Your task to perform on an android device: Add logitech g pro to the cart on walmart.com Image 0: 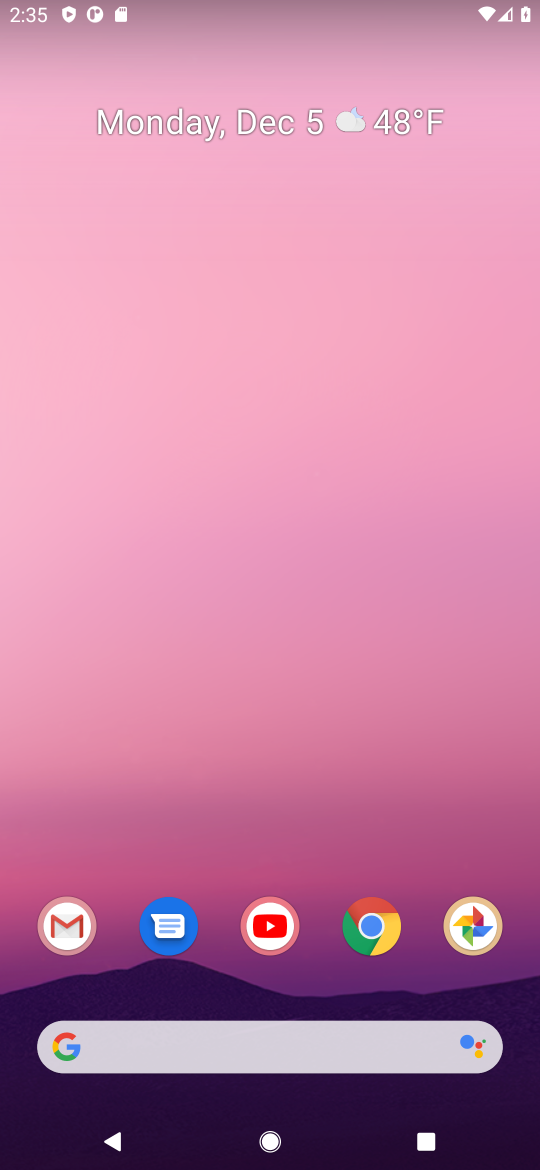
Step 0: click (380, 930)
Your task to perform on an android device: Add logitech g pro to the cart on walmart.com Image 1: 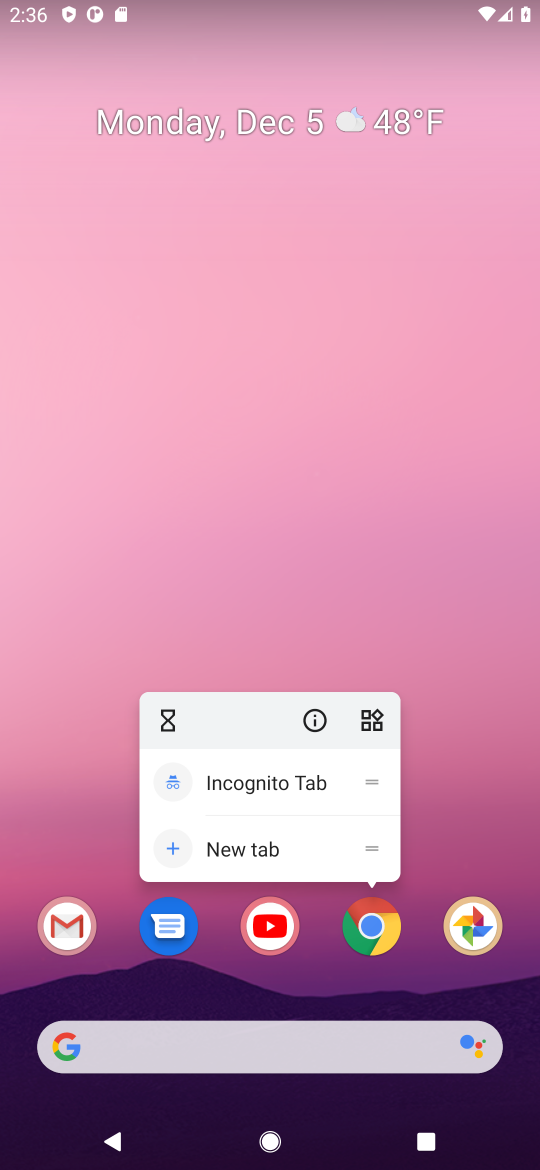
Step 1: click (396, 925)
Your task to perform on an android device: Add logitech g pro to the cart on walmart.com Image 2: 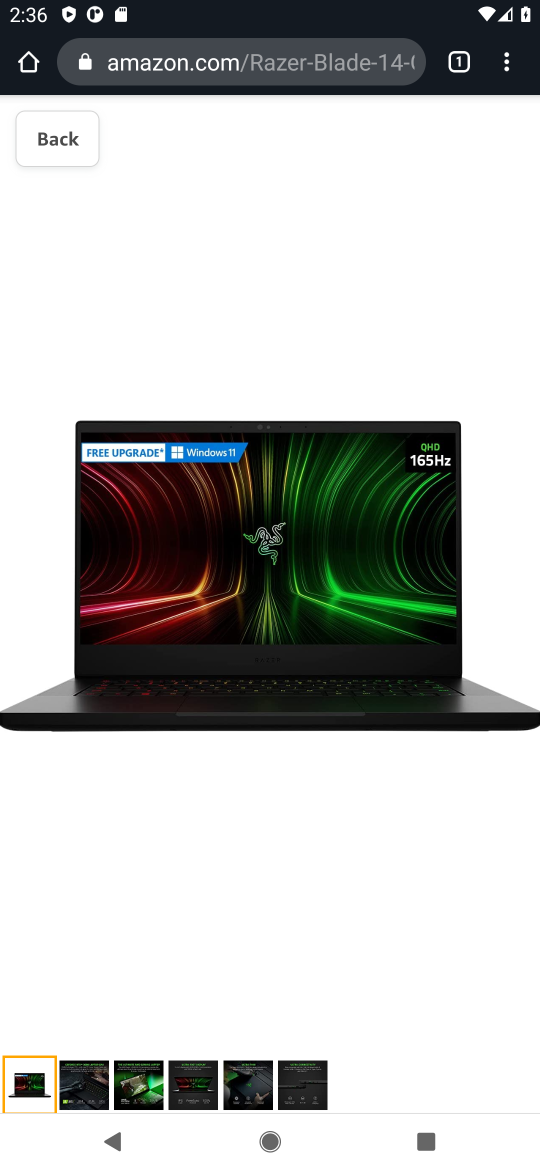
Step 2: click (230, 69)
Your task to perform on an android device: Add logitech g pro to the cart on walmart.com Image 3: 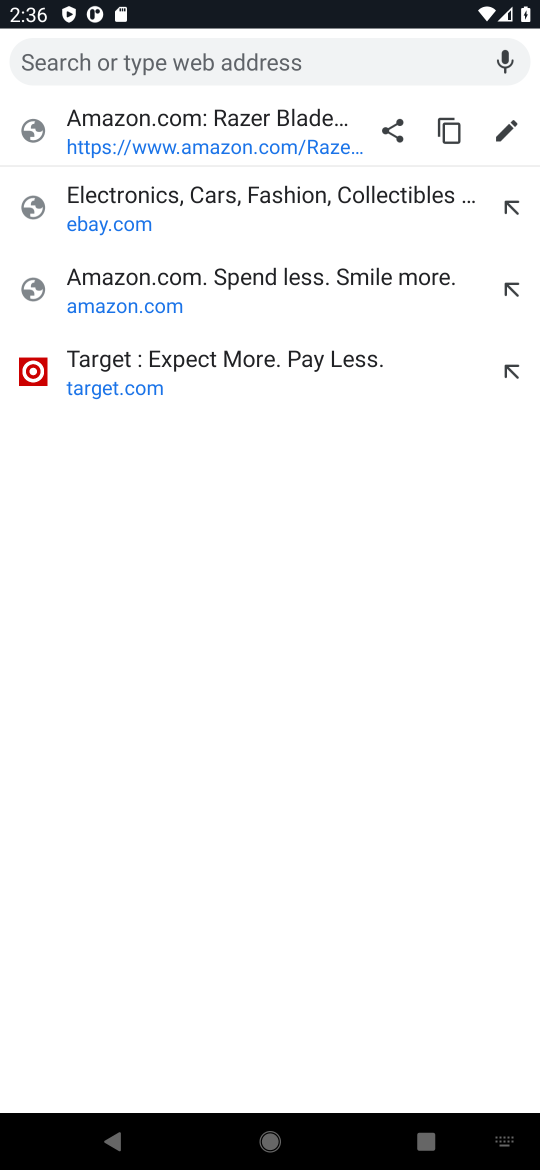
Step 3: type "walmart.com"
Your task to perform on an android device: Add logitech g pro to the cart on walmart.com Image 4: 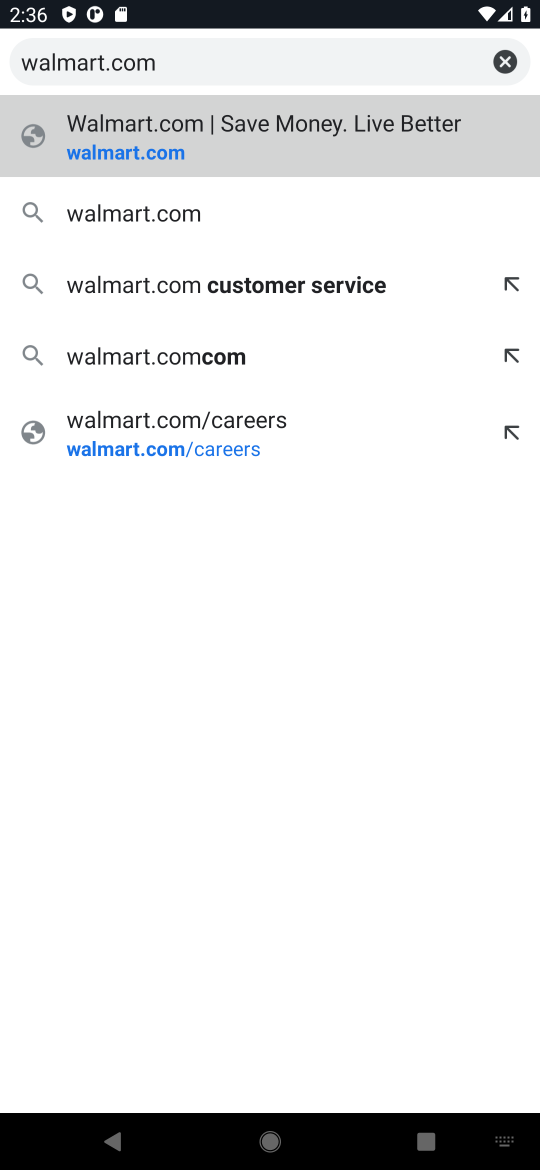
Step 4: press enter
Your task to perform on an android device: Add logitech g pro to the cart on walmart.com Image 5: 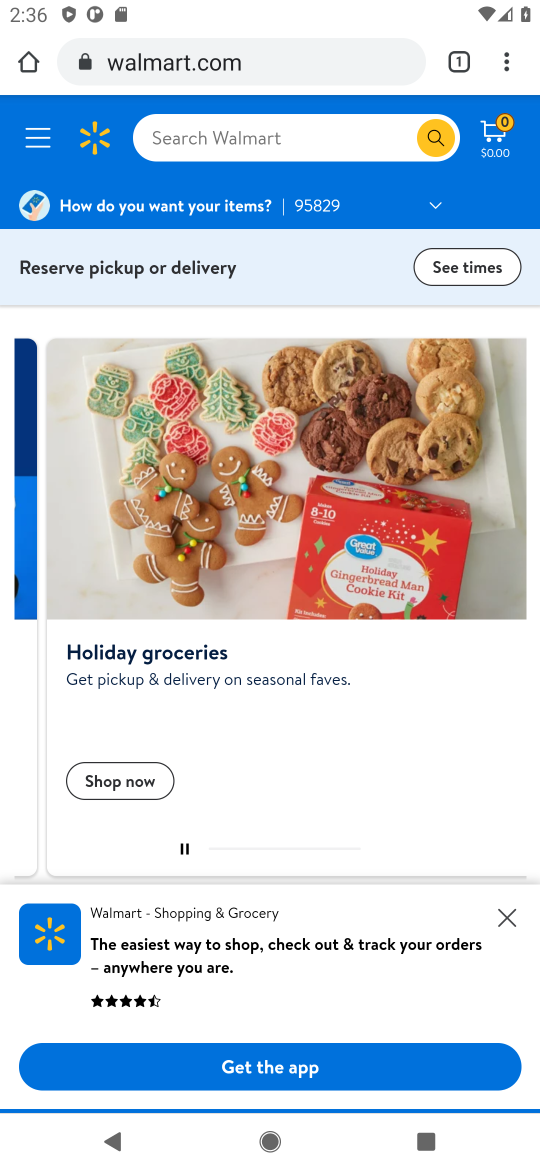
Step 5: click (385, 122)
Your task to perform on an android device: Add logitech g pro to the cart on walmart.com Image 6: 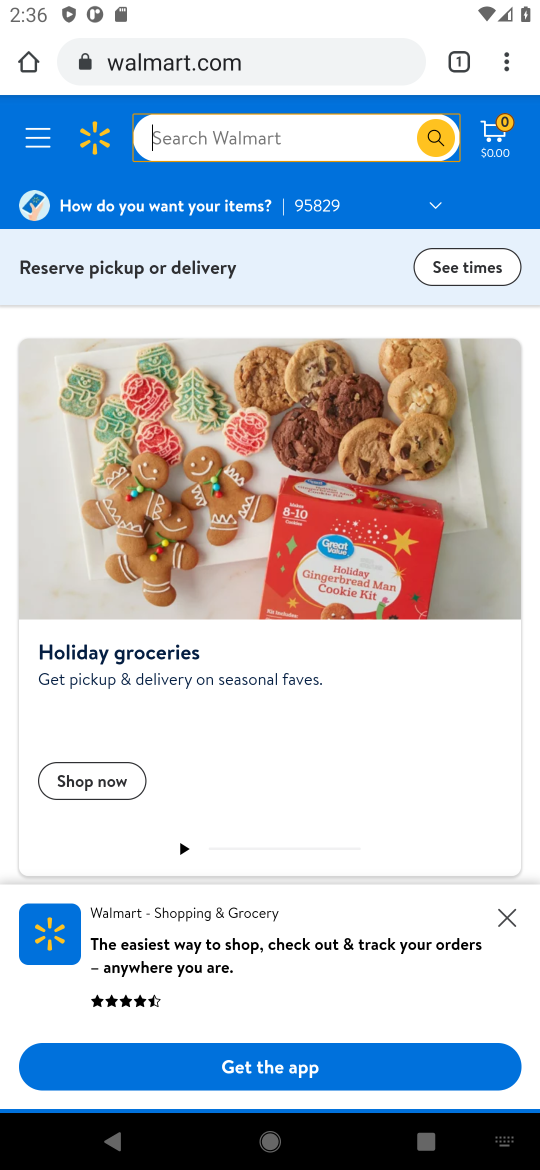
Step 6: press enter
Your task to perform on an android device: Add logitech g pro to the cart on walmart.com Image 7: 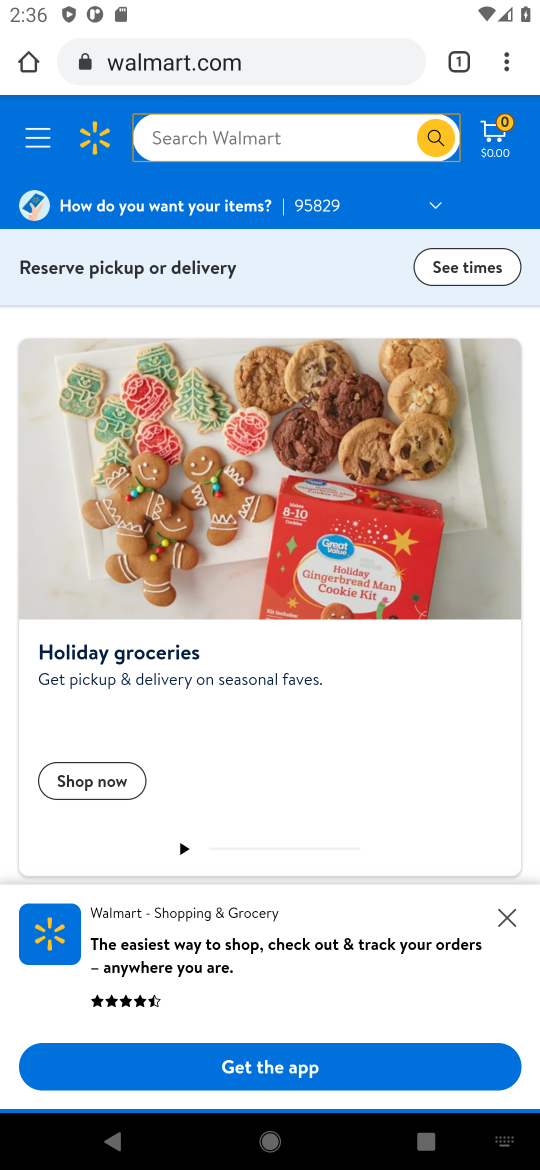
Step 7: type "logitech g pro"
Your task to perform on an android device: Add logitech g pro to the cart on walmart.com Image 8: 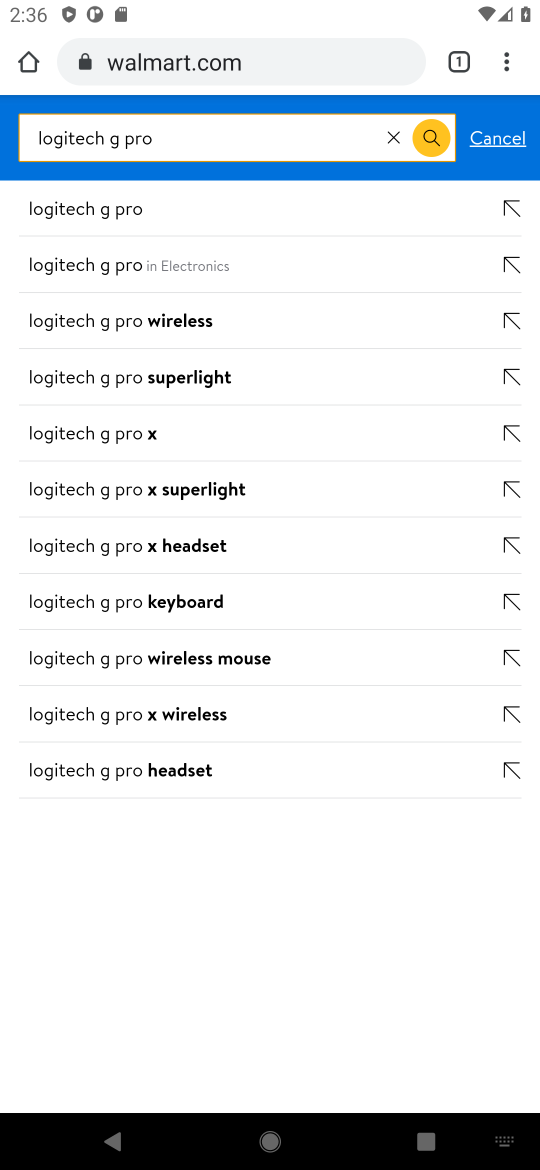
Step 8: click (82, 213)
Your task to perform on an android device: Add logitech g pro to the cart on walmart.com Image 9: 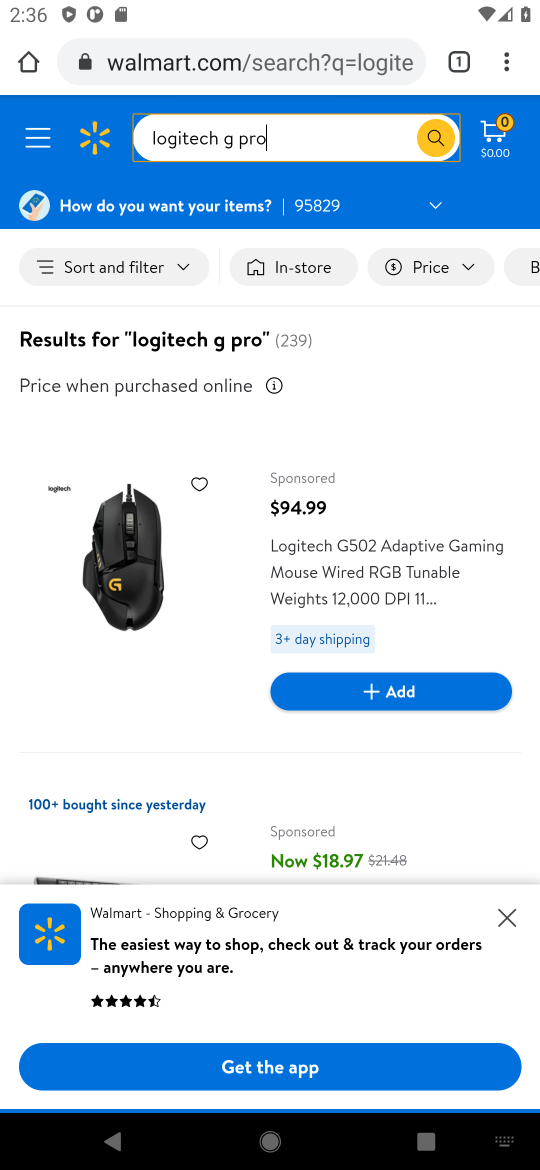
Step 9: click (508, 916)
Your task to perform on an android device: Add logitech g pro to the cart on walmart.com Image 10: 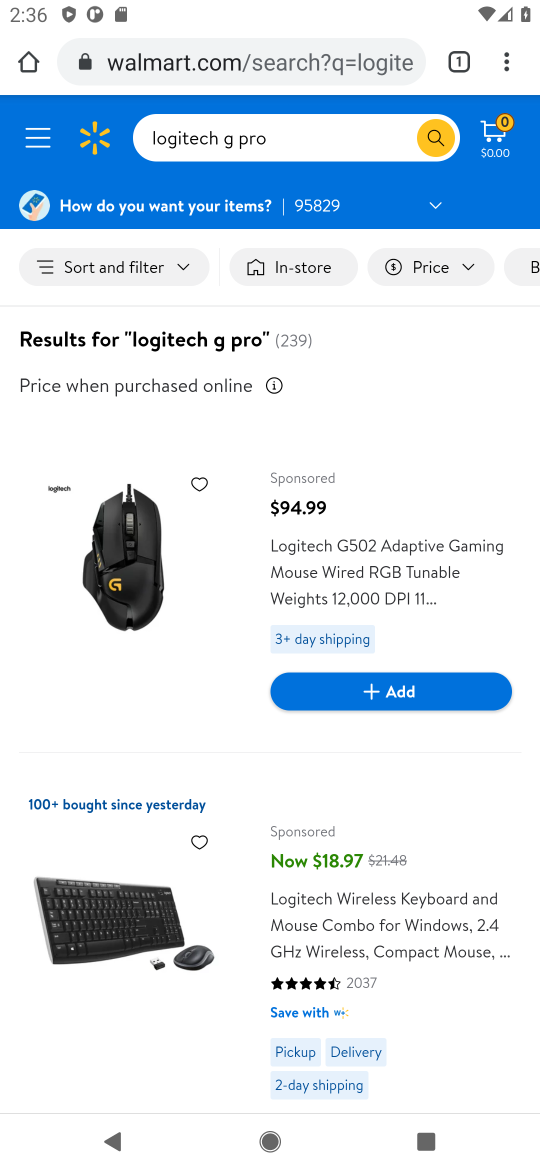
Step 10: drag from (459, 838) to (509, 335)
Your task to perform on an android device: Add logitech g pro to the cart on walmart.com Image 11: 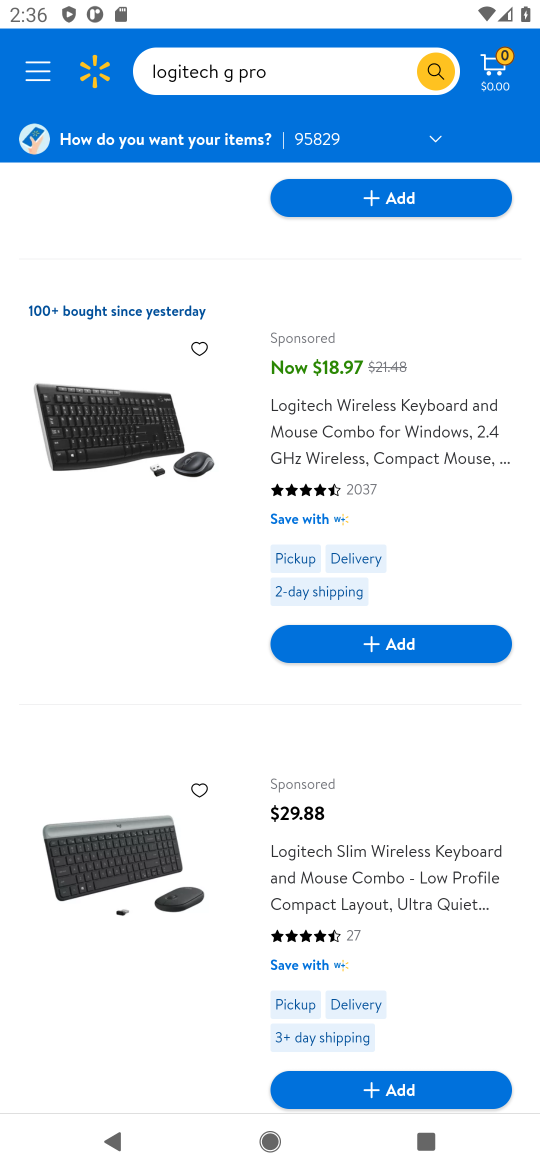
Step 11: drag from (422, 758) to (420, 368)
Your task to perform on an android device: Add logitech g pro to the cart on walmart.com Image 12: 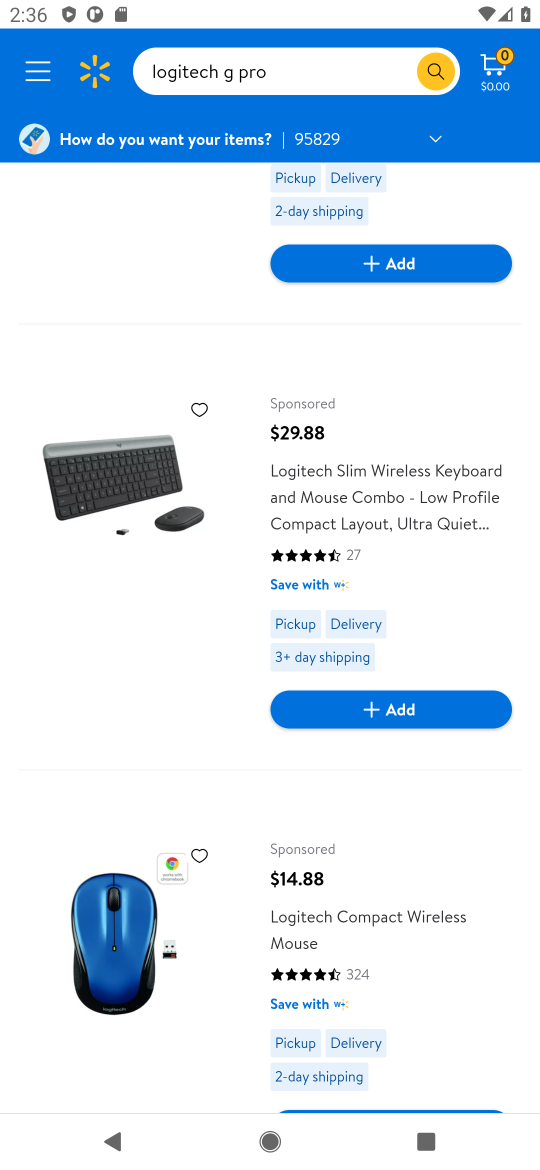
Step 12: drag from (427, 957) to (379, 401)
Your task to perform on an android device: Add logitech g pro to the cart on walmart.com Image 13: 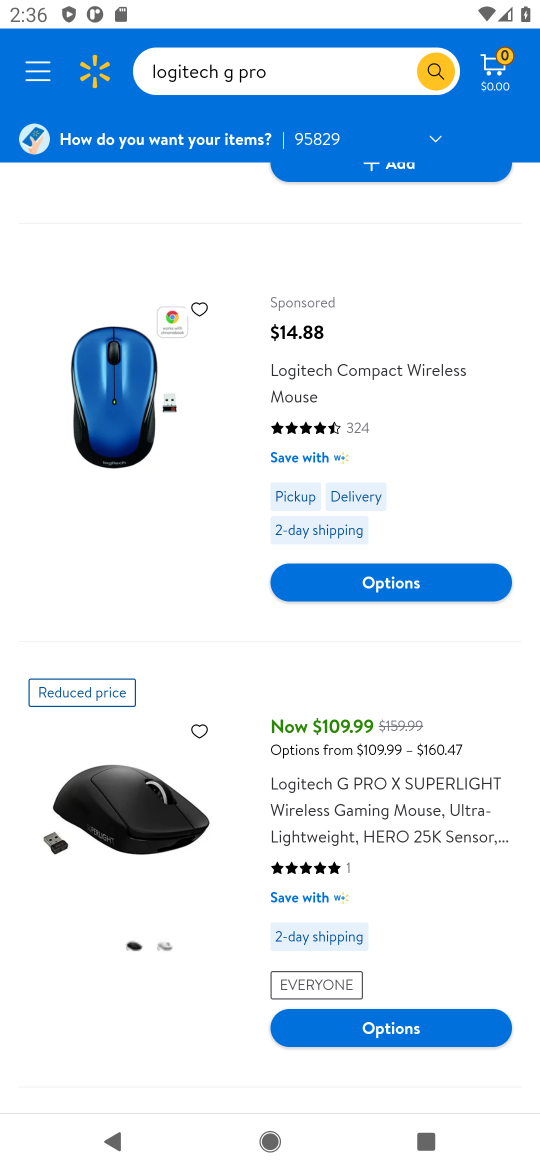
Step 13: click (141, 813)
Your task to perform on an android device: Add logitech g pro to the cart on walmart.com Image 14: 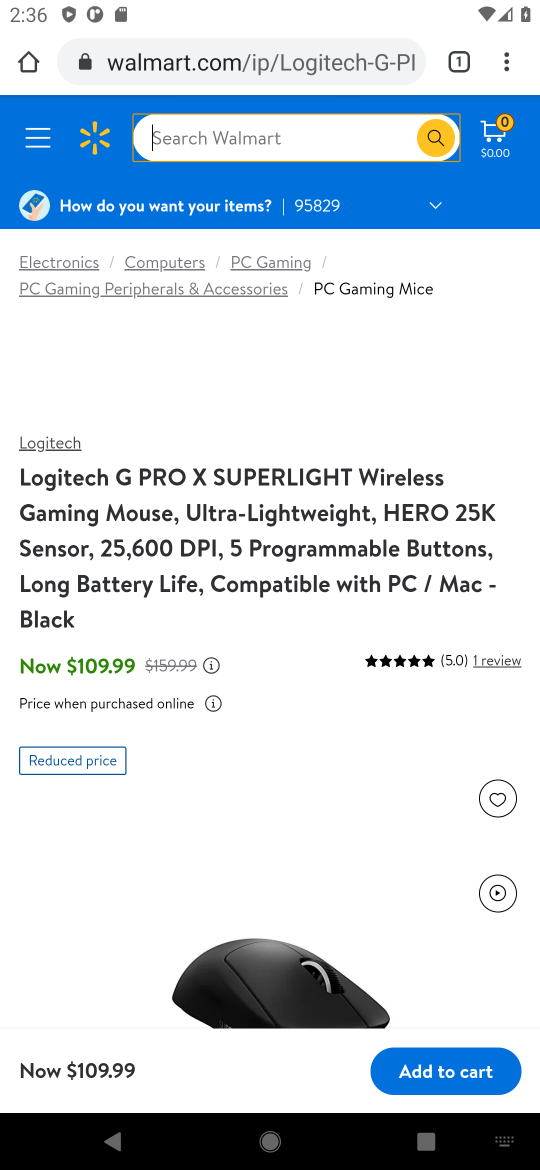
Step 14: click (439, 1073)
Your task to perform on an android device: Add logitech g pro to the cart on walmart.com Image 15: 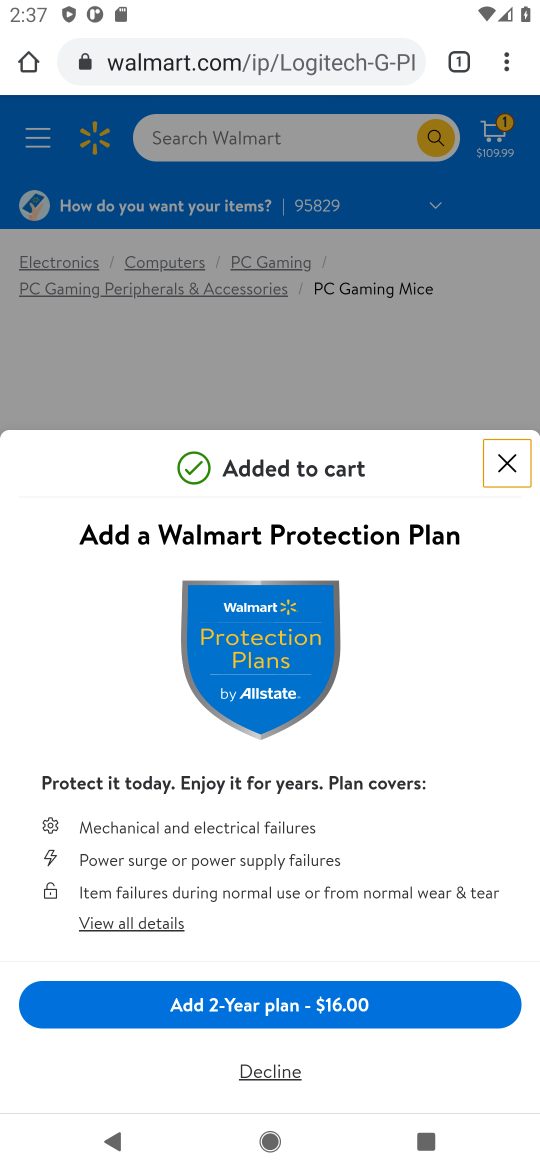
Step 15: task complete